Your task to perform on an android device: Turn off the flashlight Image 0: 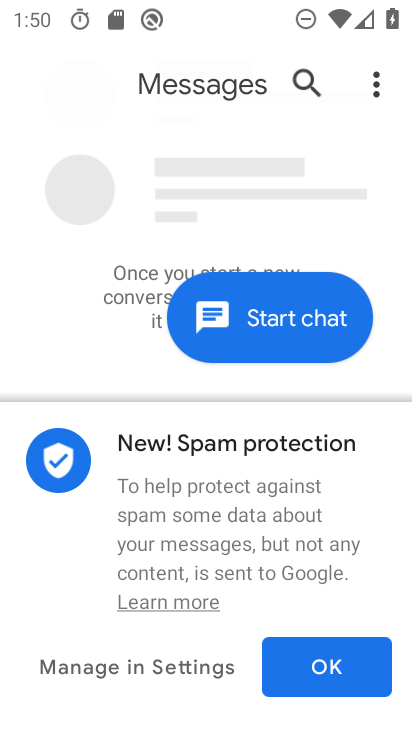
Step 0: press home button
Your task to perform on an android device: Turn off the flashlight Image 1: 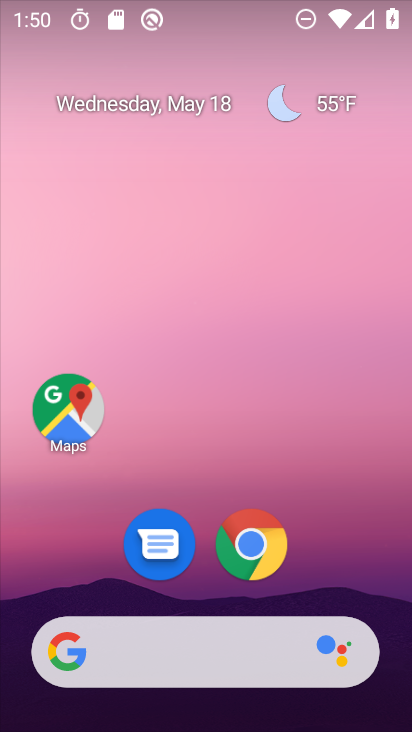
Step 1: drag from (319, 580) to (258, 99)
Your task to perform on an android device: Turn off the flashlight Image 2: 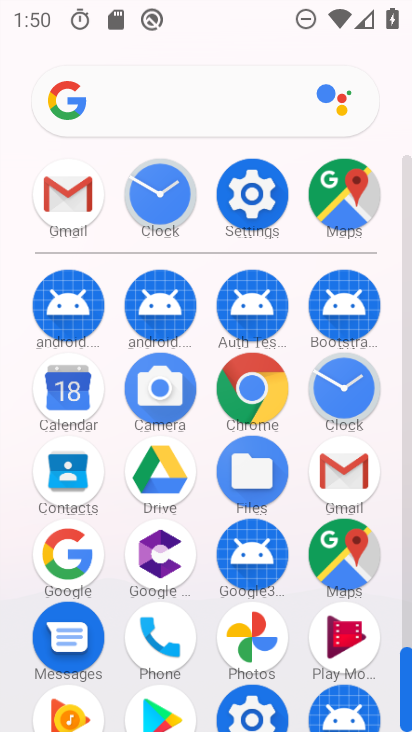
Step 2: click (253, 191)
Your task to perform on an android device: Turn off the flashlight Image 3: 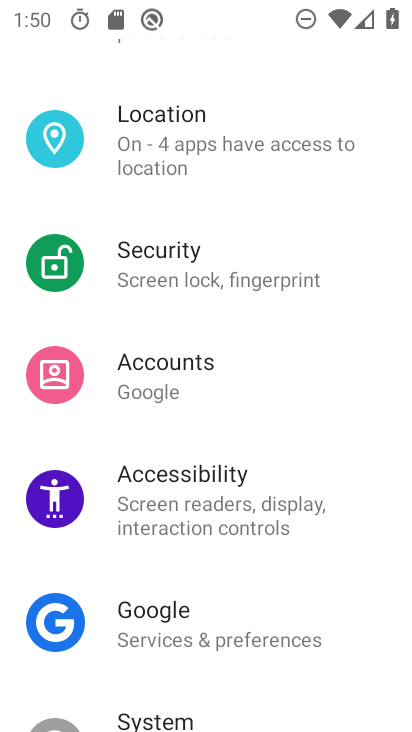
Step 3: task complete